Your task to perform on an android device: Show me popular videos on Youtube Image 0: 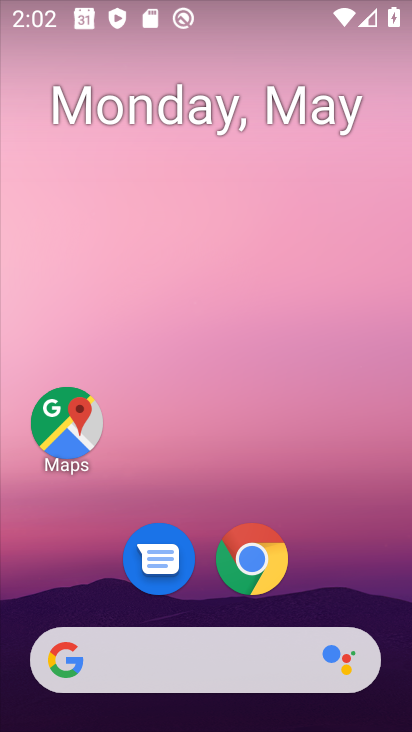
Step 0: drag from (386, 639) to (409, 673)
Your task to perform on an android device: Show me popular videos on Youtube Image 1: 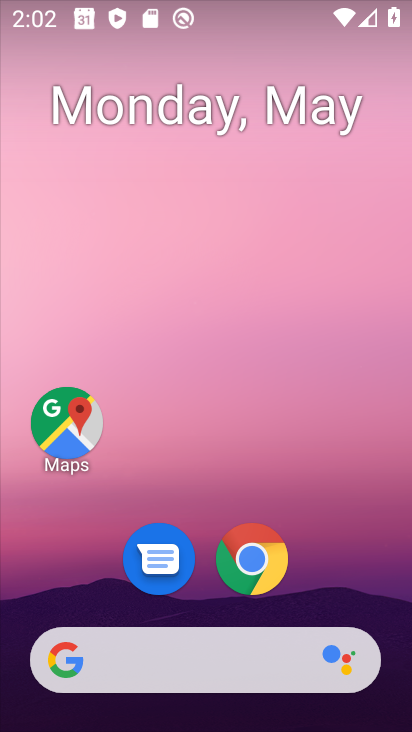
Step 1: drag from (411, 225) to (403, 7)
Your task to perform on an android device: Show me popular videos on Youtube Image 2: 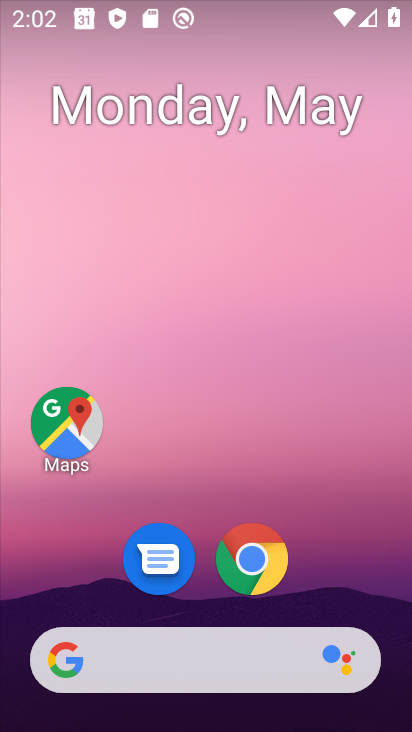
Step 2: drag from (383, 595) to (392, 2)
Your task to perform on an android device: Show me popular videos on Youtube Image 3: 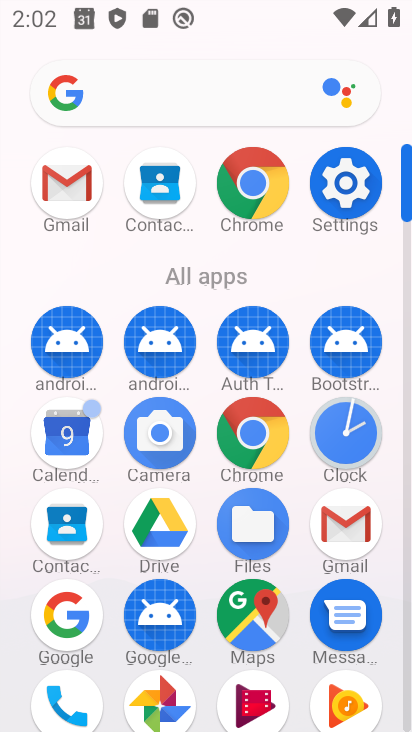
Step 3: drag from (411, 537) to (408, 476)
Your task to perform on an android device: Show me popular videos on Youtube Image 4: 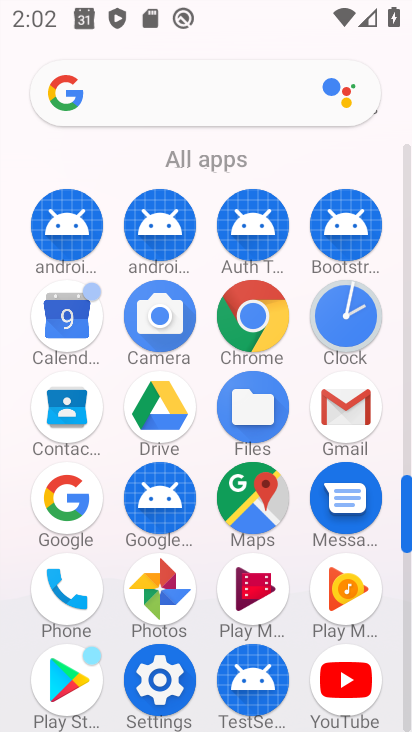
Step 4: click (345, 678)
Your task to perform on an android device: Show me popular videos on Youtube Image 5: 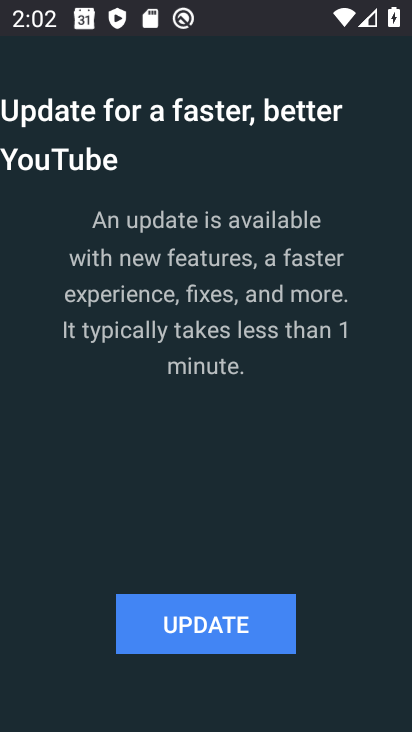
Step 5: click (237, 645)
Your task to perform on an android device: Show me popular videos on Youtube Image 6: 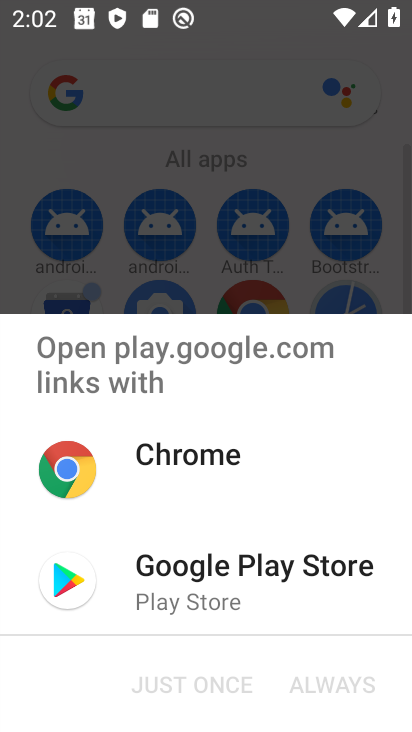
Step 6: click (178, 590)
Your task to perform on an android device: Show me popular videos on Youtube Image 7: 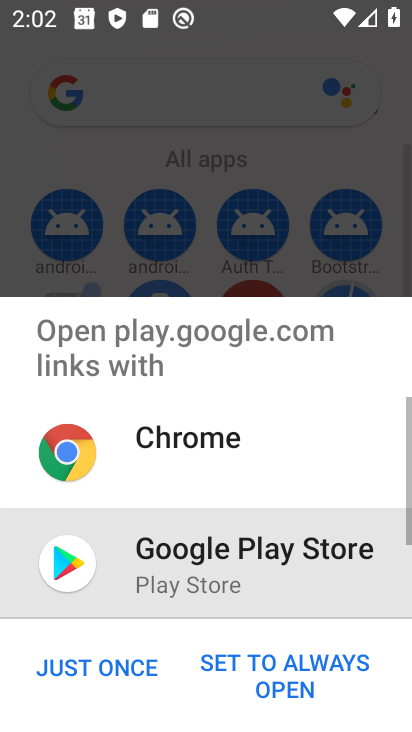
Step 7: click (88, 672)
Your task to perform on an android device: Show me popular videos on Youtube Image 8: 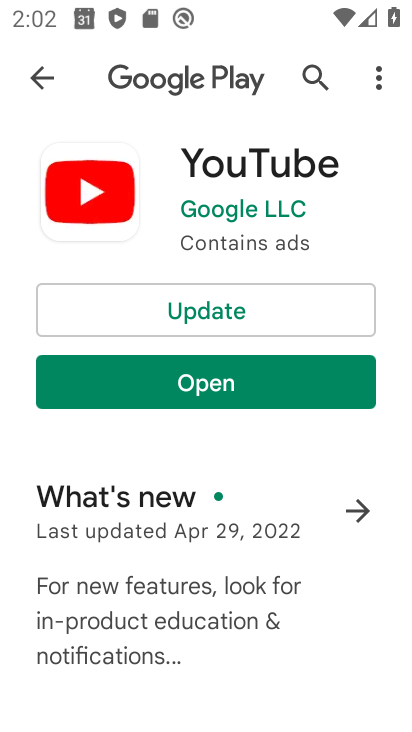
Step 8: click (191, 313)
Your task to perform on an android device: Show me popular videos on Youtube Image 9: 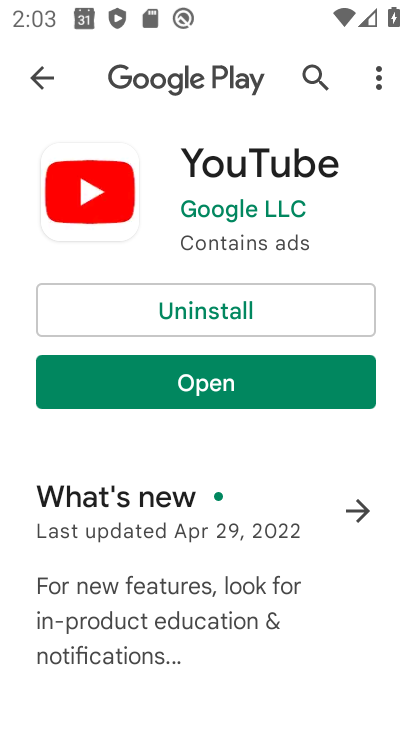
Step 9: click (197, 378)
Your task to perform on an android device: Show me popular videos on Youtube Image 10: 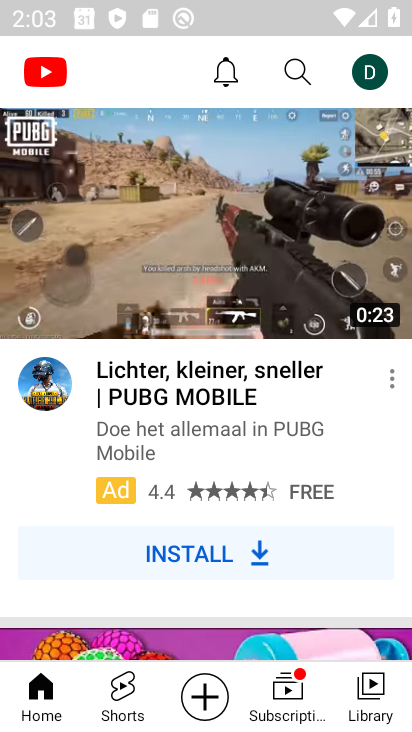
Step 10: task complete